Your task to perform on an android device: set the stopwatch Image 0: 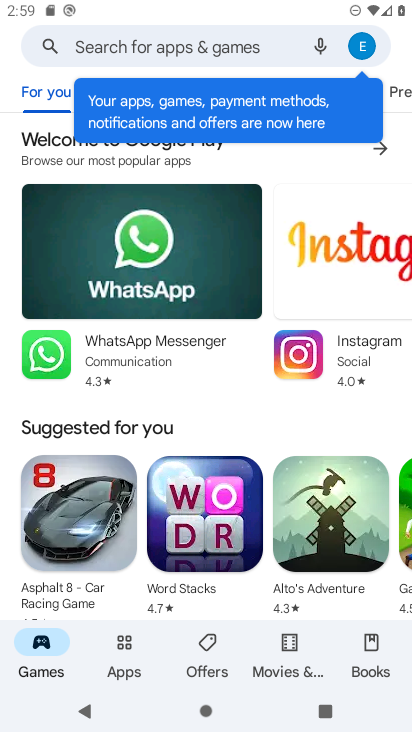
Step 0: press home button
Your task to perform on an android device: set the stopwatch Image 1: 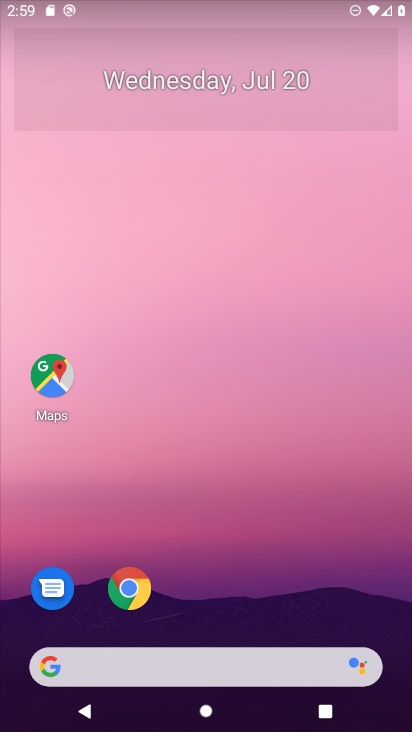
Step 1: drag from (209, 635) to (59, 23)
Your task to perform on an android device: set the stopwatch Image 2: 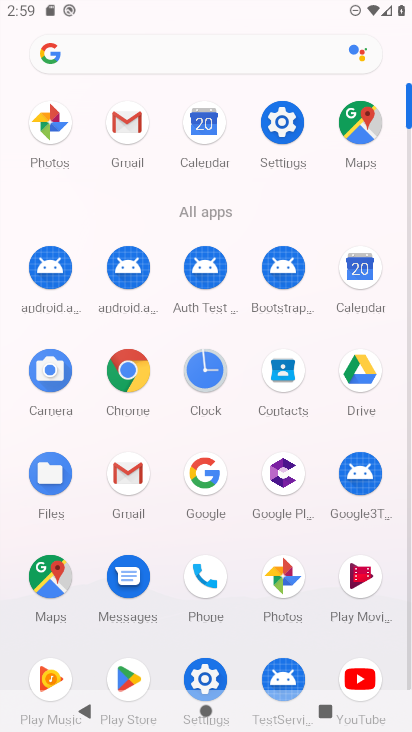
Step 2: click (215, 378)
Your task to perform on an android device: set the stopwatch Image 3: 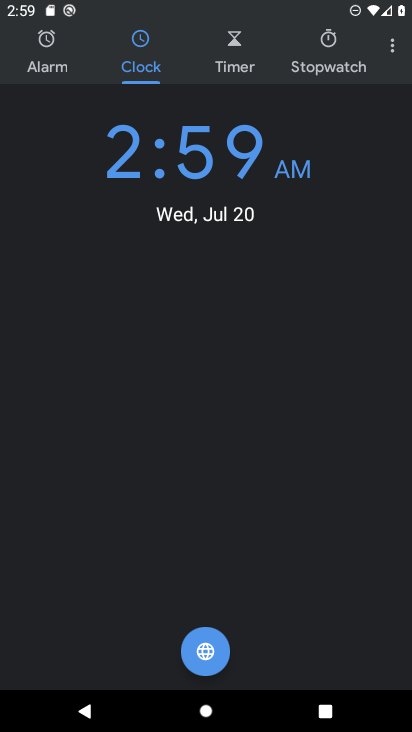
Step 3: click (337, 42)
Your task to perform on an android device: set the stopwatch Image 4: 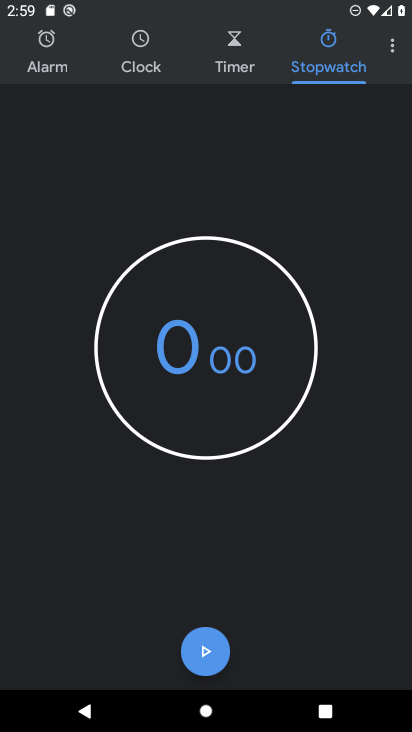
Step 4: click (215, 660)
Your task to perform on an android device: set the stopwatch Image 5: 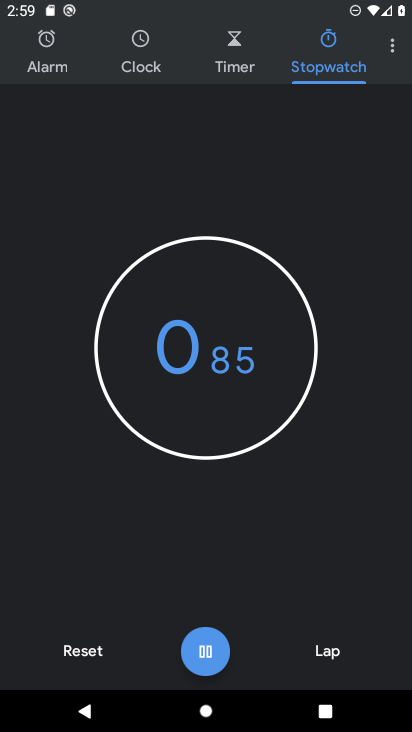
Step 5: click (215, 660)
Your task to perform on an android device: set the stopwatch Image 6: 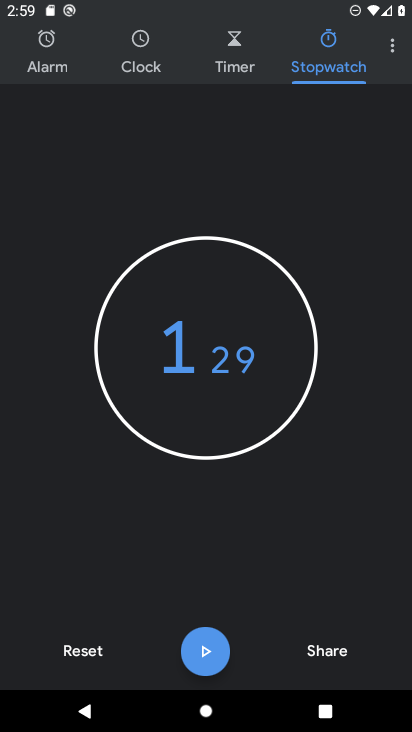
Step 6: task complete